Your task to perform on an android device: Go to network settings Image 0: 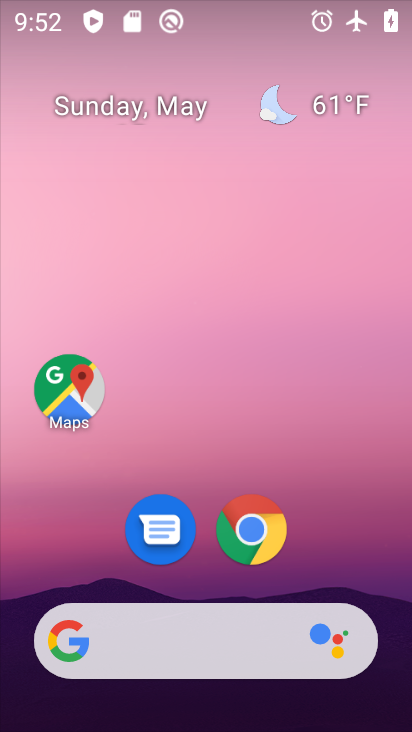
Step 0: drag from (202, 729) to (208, 270)
Your task to perform on an android device: Go to network settings Image 1: 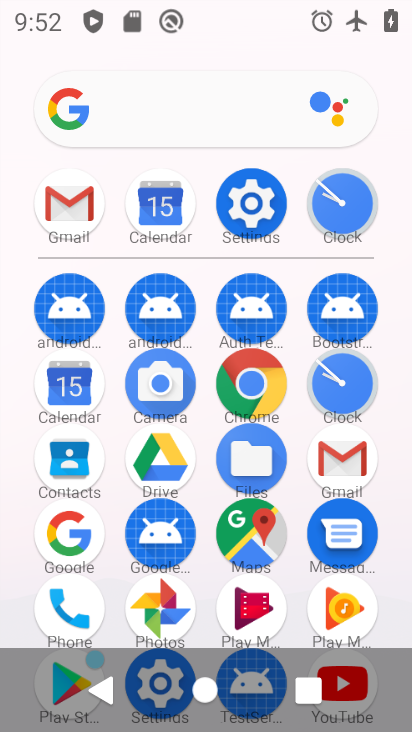
Step 1: click (252, 193)
Your task to perform on an android device: Go to network settings Image 2: 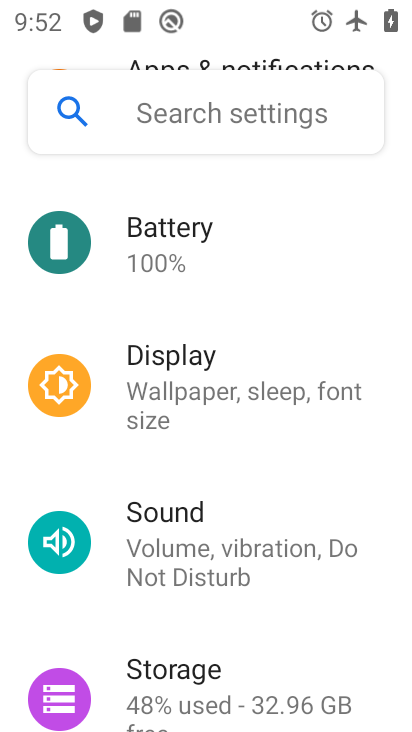
Step 2: drag from (196, 244) to (192, 486)
Your task to perform on an android device: Go to network settings Image 3: 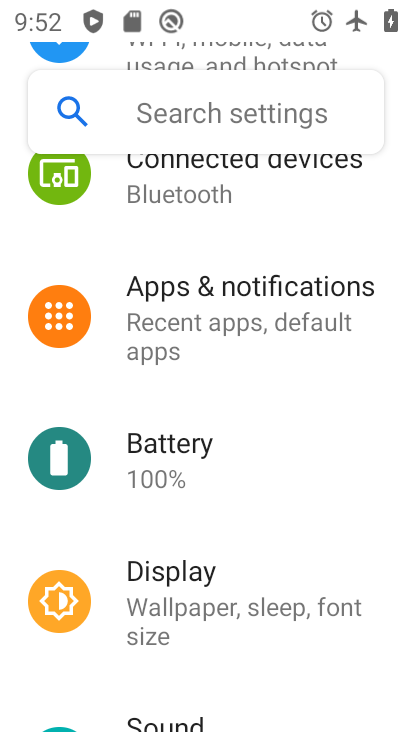
Step 3: drag from (224, 193) to (214, 593)
Your task to perform on an android device: Go to network settings Image 4: 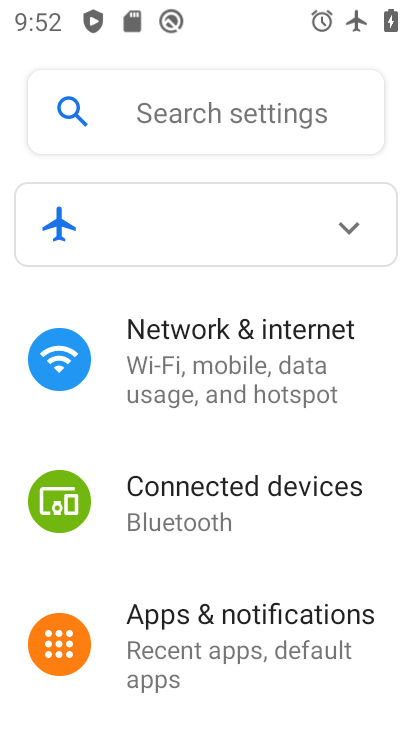
Step 4: click (203, 361)
Your task to perform on an android device: Go to network settings Image 5: 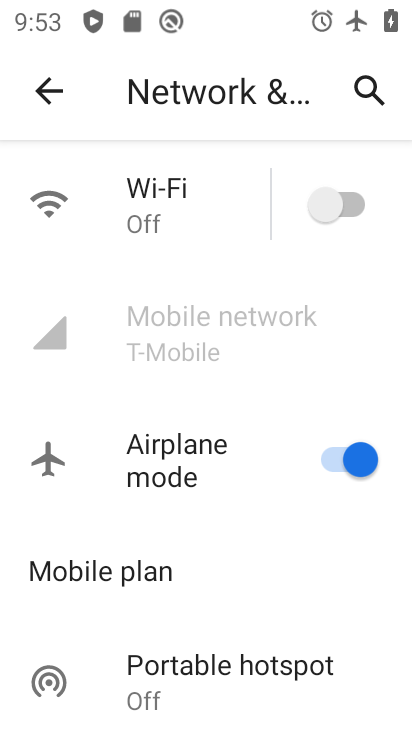
Step 5: task complete